Your task to perform on an android device: remove spam from my inbox in the gmail app Image 0: 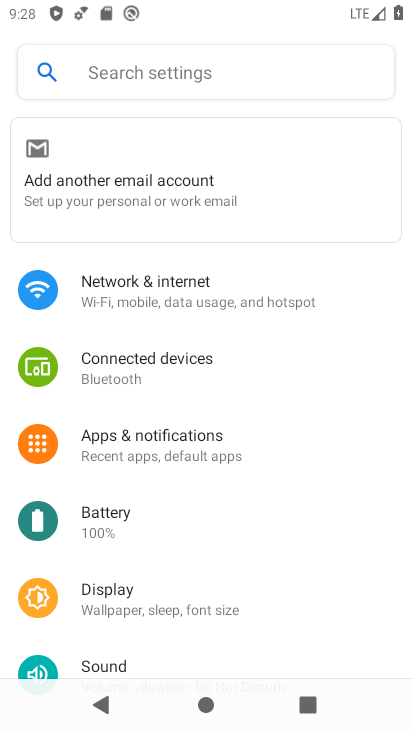
Step 0: press home button
Your task to perform on an android device: remove spam from my inbox in the gmail app Image 1: 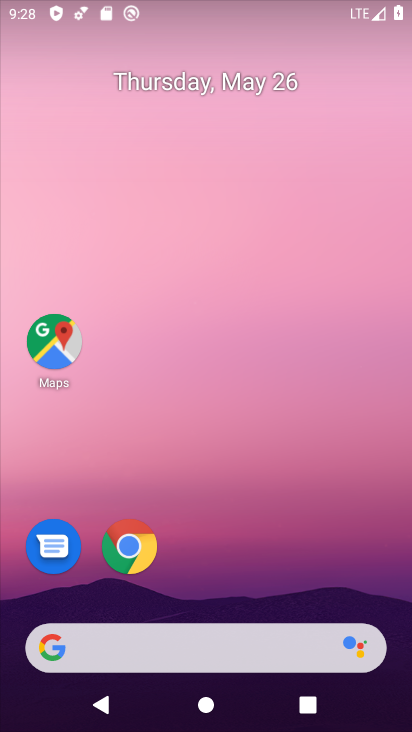
Step 1: drag from (328, 562) to (297, 208)
Your task to perform on an android device: remove spam from my inbox in the gmail app Image 2: 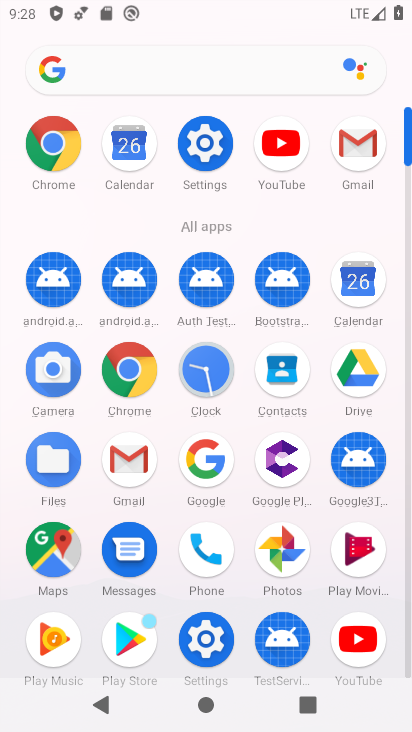
Step 2: click (138, 463)
Your task to perform on an android device: remove spam from my inbox in the gmail app Image 3: 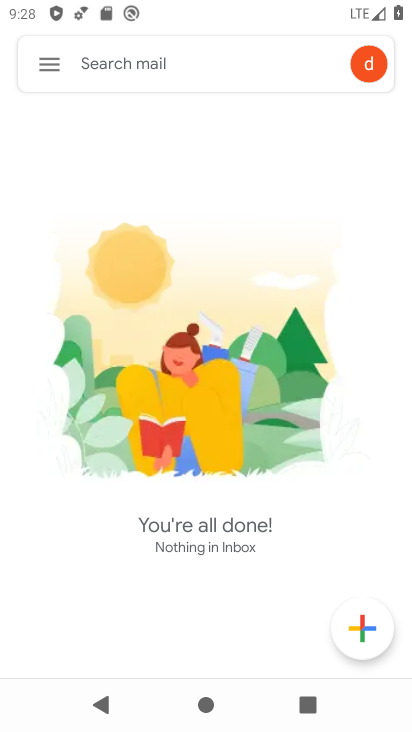
Step 3: click (35, 68)
Your task to perform on an android device: remove spam from my inbox in the gmail app Image 4: 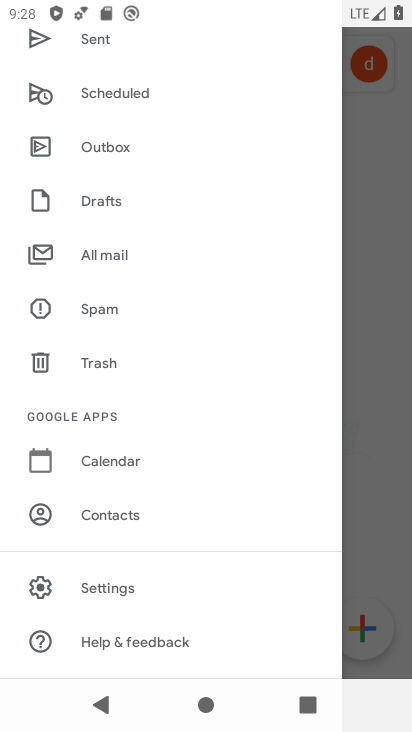
Step 4: click (115, 317)
Your task to perform on an android device: remove spam from my inbox in the gmail app Image 5: 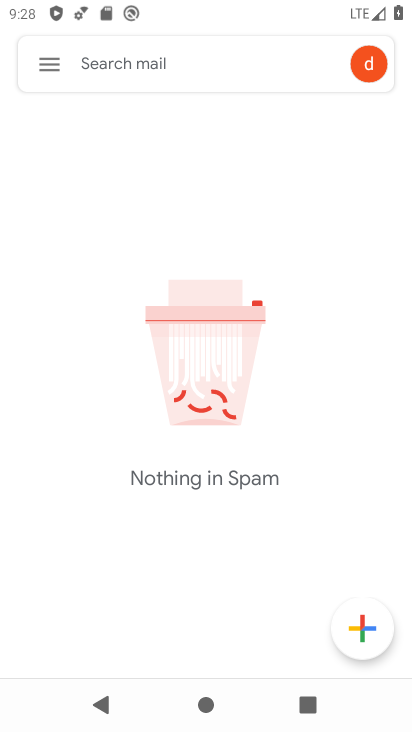
Step 5: task complete